Your task to perform on an android device: What's the weather? Image 0: 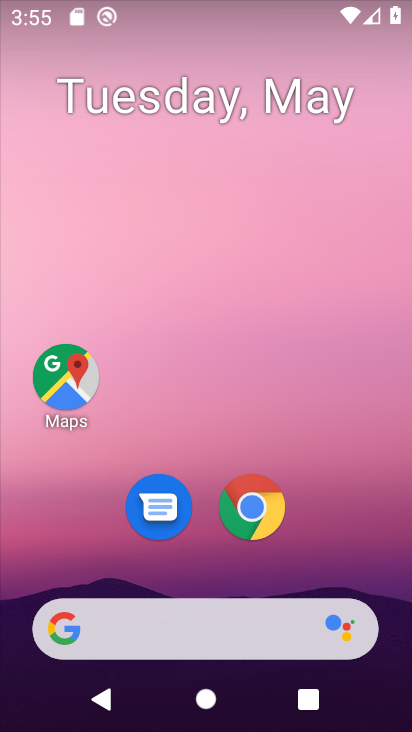
Step 0: click (175, 629)
Your task to perform on an android device: What's the weather? Image 1: 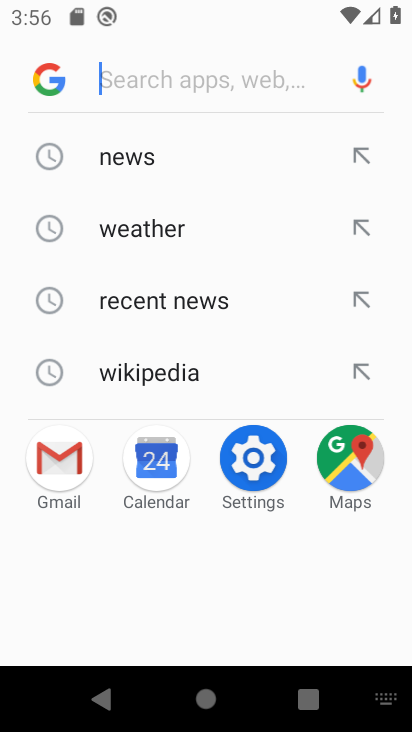
Step 1: type "what's the weatther"
Your task to perform on an android device: What's the weather? Image 2: 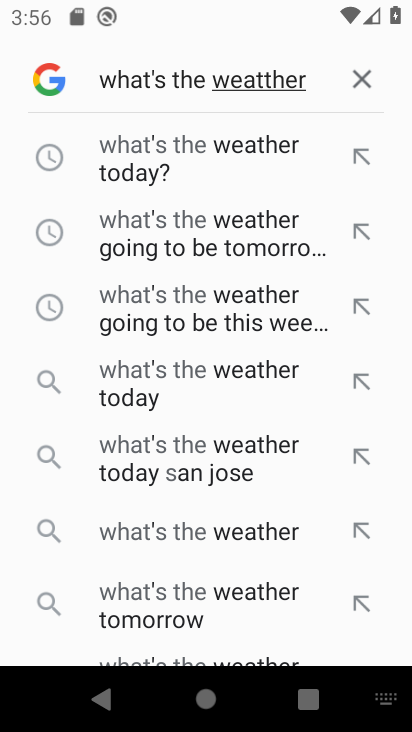
Step 2: click (188, 544)
Your task to perform on an android device: What's the weather? Image 3: 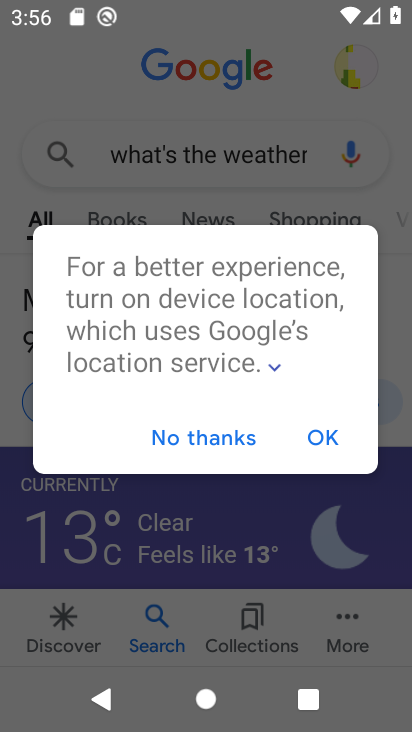
Step 3: click (206, 443)
Your task to perform on an android device: What's the weather? Image 4: 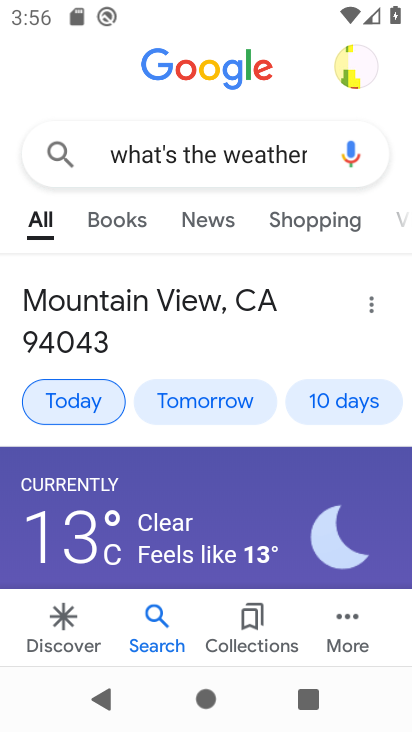
Step 4: task complete